Your task to perform on an android device: Go to Amazon Image 0: 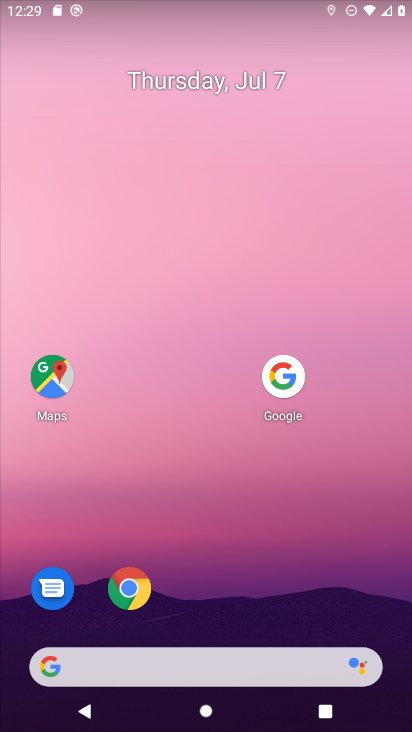
Step 0: click (139, 589)
Your task to perform on an android device: Go to Amazon Image 1: 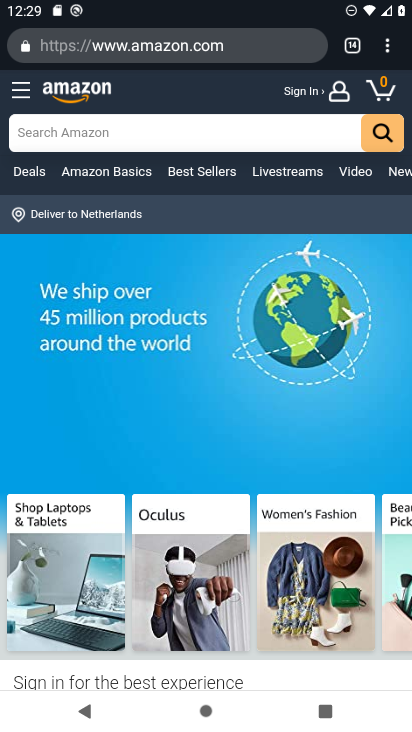
Step 1: task complete